Your task to perform on an android device: turn on airplane mode Image 0: 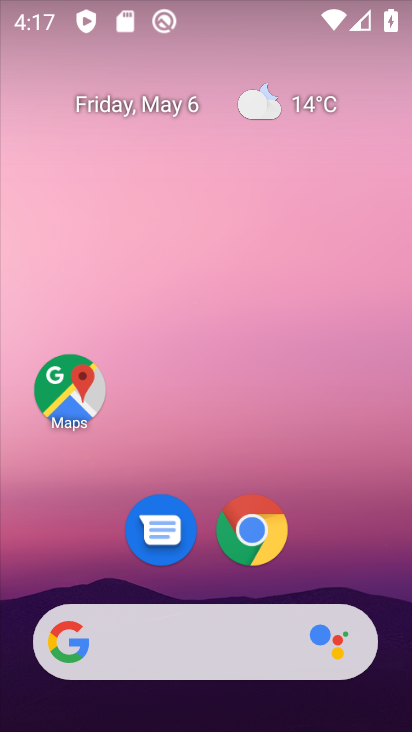
Step 0: click (298, 98)
Your task to perform on an android device: turn on airplane mode Image 1: 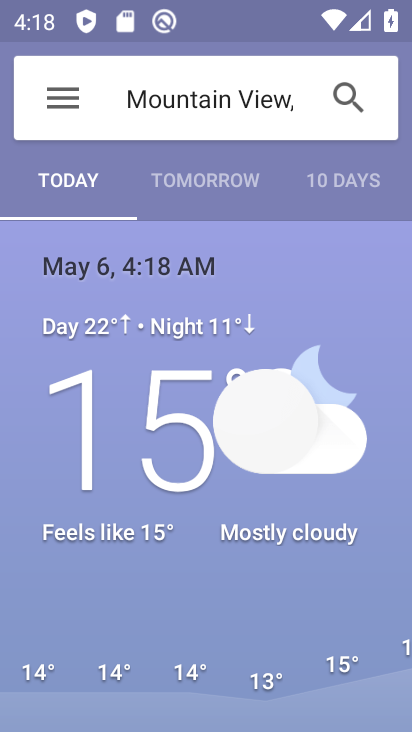
Step 1: press home button
Your task to perform on an android device: turn on airplane mode Image 2: 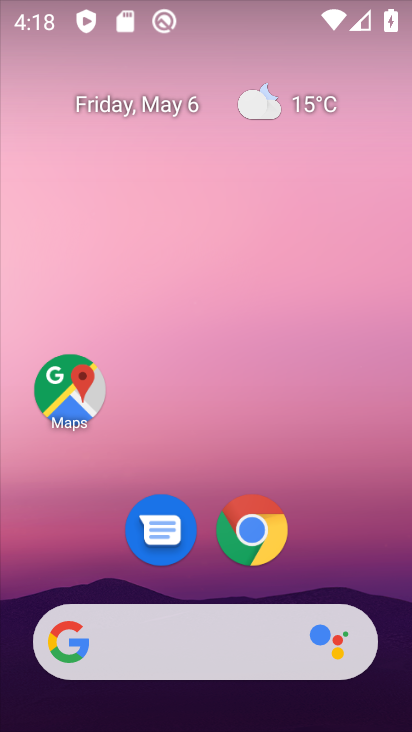
Step 2: drag from (355, 549) to (293, 111)
Your task to perform on an android device: turn on airplane mode Image 3: 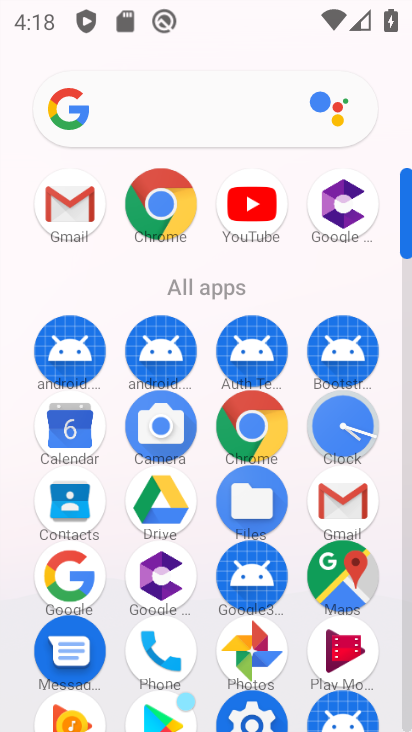
Step 3: click (251, 729)
Your task to perform on an android device: turn on airplane mode Image 4: 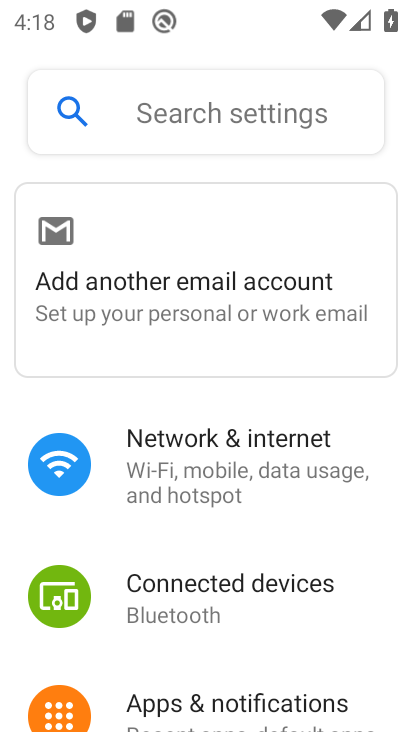
Step 4: click (240, 474)
Your task to perform on an android device: turn on airplane mode Image 5: 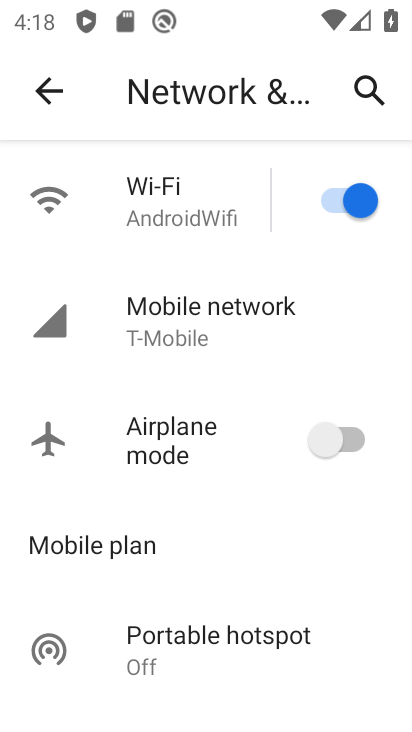
Step 5: click (335, 451)
Your task to perform on an android device: turn on airplane mode Image 6: 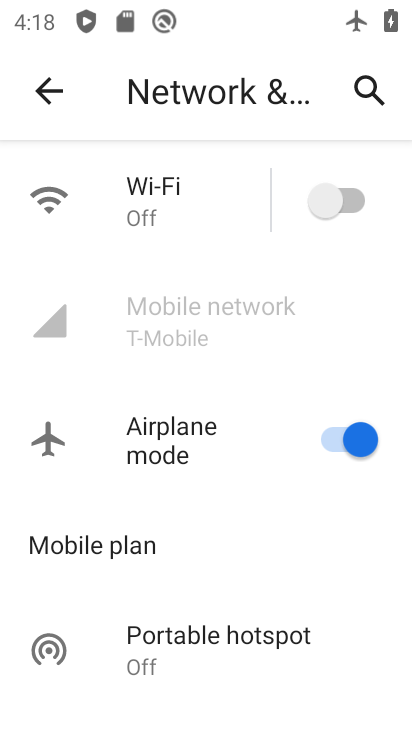
Step 6: task complete